Your task to perform on an android device: Open the phone app and click the voicemail tab. Image 0: 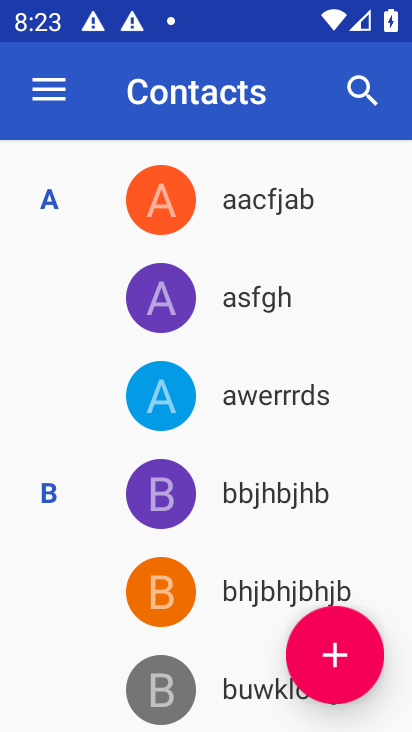
Step 0: press home button
Your task to perform on an android device: Open the phone app and click the voicemail tab. Image 1: 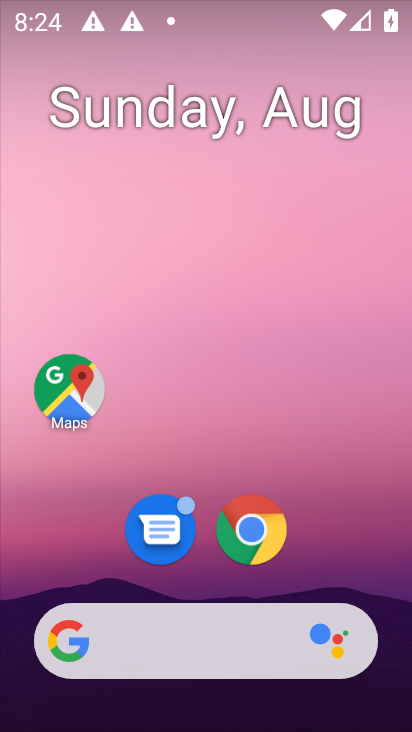
Step 1: drag from (205, 590) to (242, 64)
Your task to perform on an android device: Open the phone app and click the voicemail tab. Image 2: 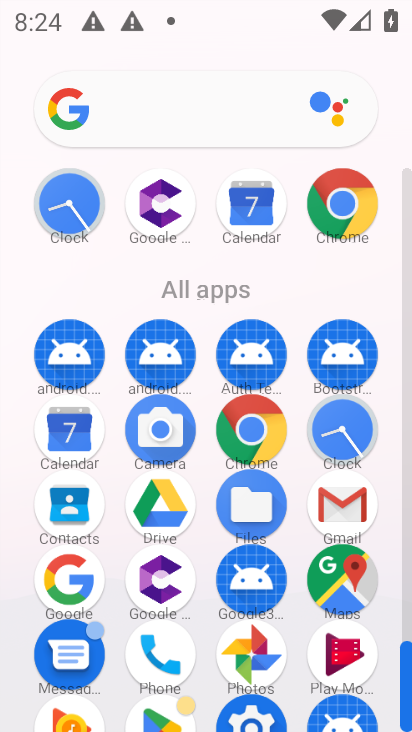
Step 2: click (143, 660)
Your task to perform on an android device: Open the phone app and click the voicemail tab. Image 3: 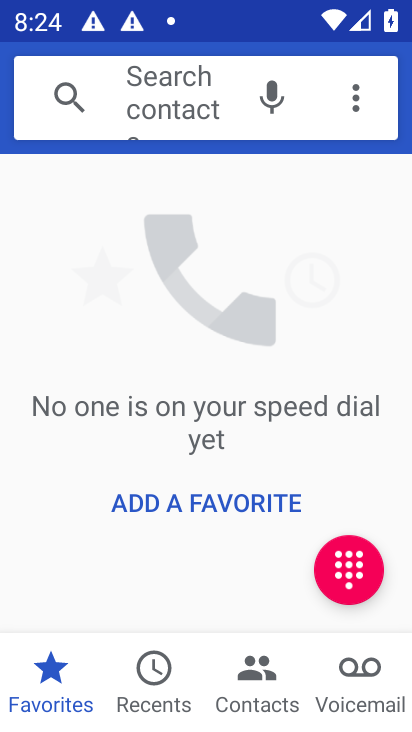
Step 3: click (364, 691)
Your task to perform on an android device: Open the phone app and click the voicemail tab. Image 4: 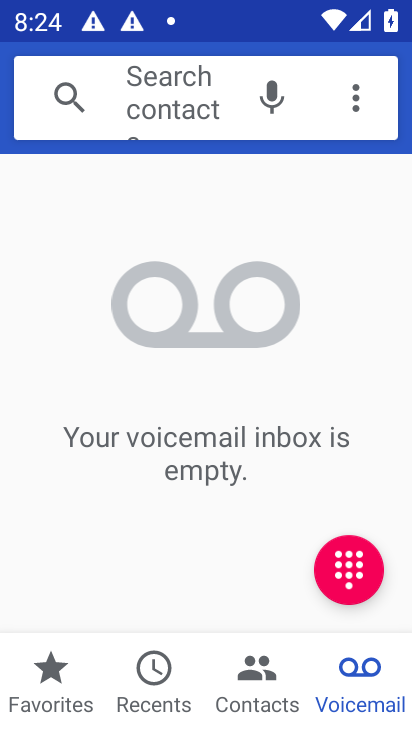
Step 4: task complete